Your task to perform on an android device: change the clock display to analog Image 0: 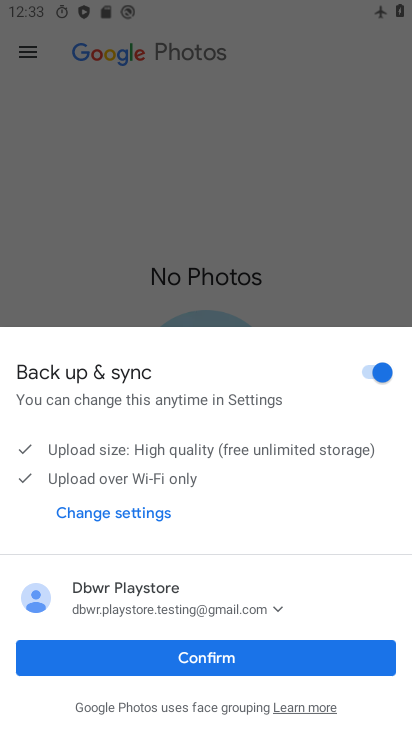
Step 0: press home button
Your task to perform on an android device: change the clock display to analog Image 1: 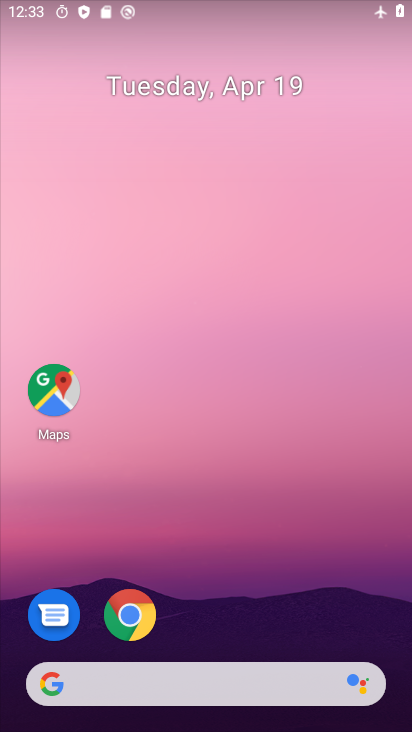
Step 1: drag from (383, 594) to (369, 66)
Your task to perform on an android device: change the clock display to analog Image 2: 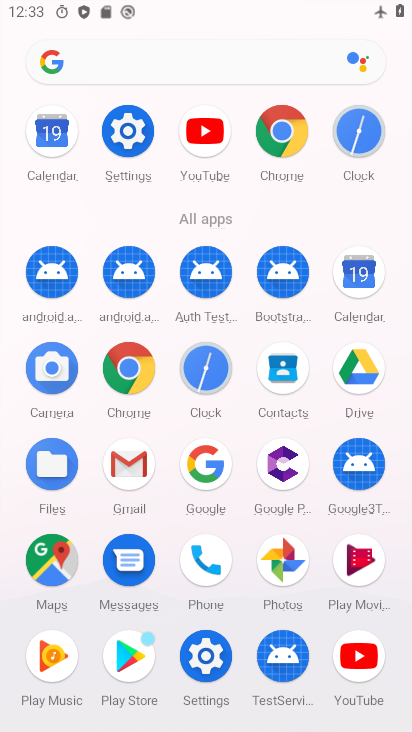
Step 2: click (208, 373)
Your task to perform on an android device: change the clock display to analog Image 3: 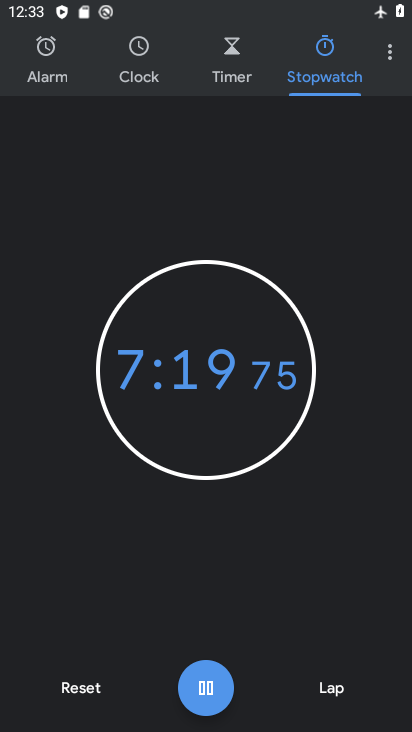
Step 3: click (389, 55)
Your task to perform on an android device: change the clock display to analog Image 4: 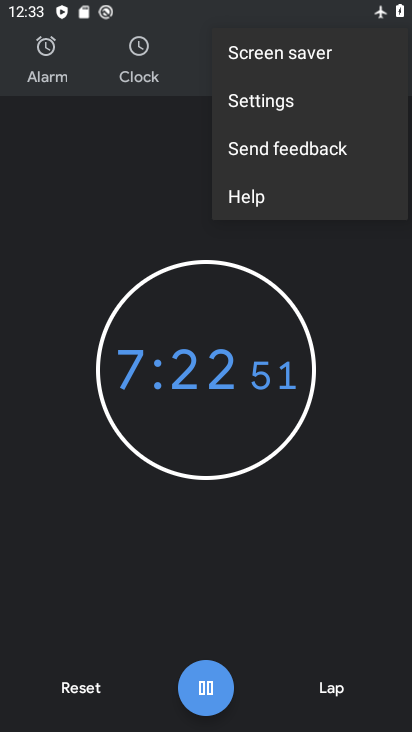
Step 4: click (293, 102)
Your task to perform on an android device: change the clock display to analog Image 5: 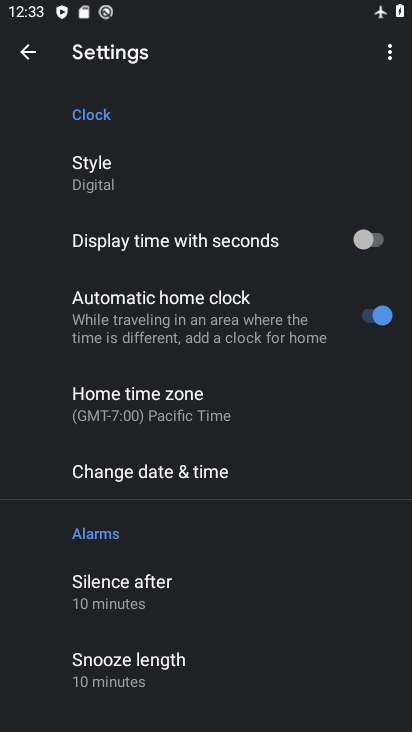
Step 5: drag from (325, 578) to (307, 393)
Your task to perform on an android device: change the clock display to analog Image 6: 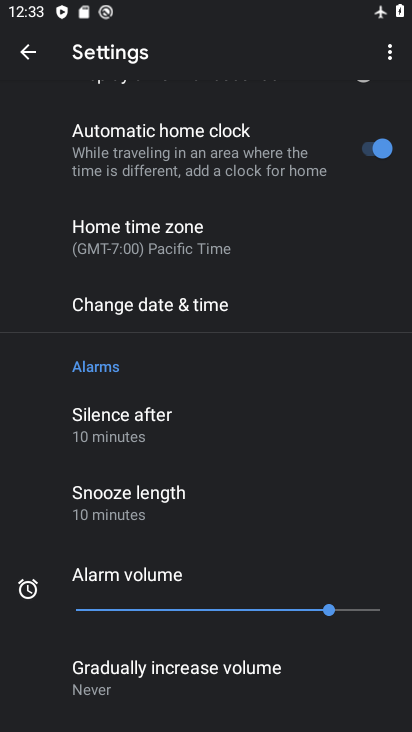
Step 6: drag from (325, 531) to (325, 308)
Your task to perform on an android device: change the clock display to analog Image 7: 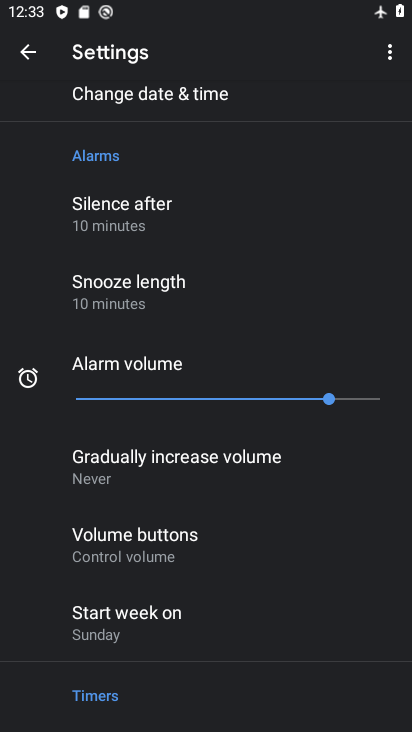
Step 7: drag from (336, 586) to (353, 355)
Your task to perform on an android device: change the clock display to analog Image 8: 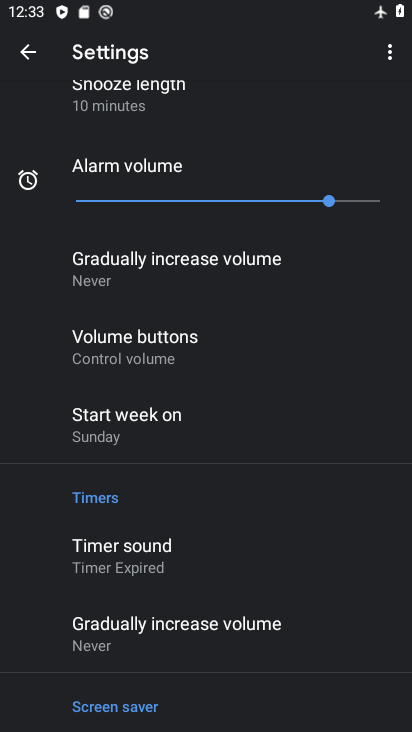
Step 8: drag from (331, 603) to (363, 284)
Your task to perform on an android device: change the clock display to analog Image 9: 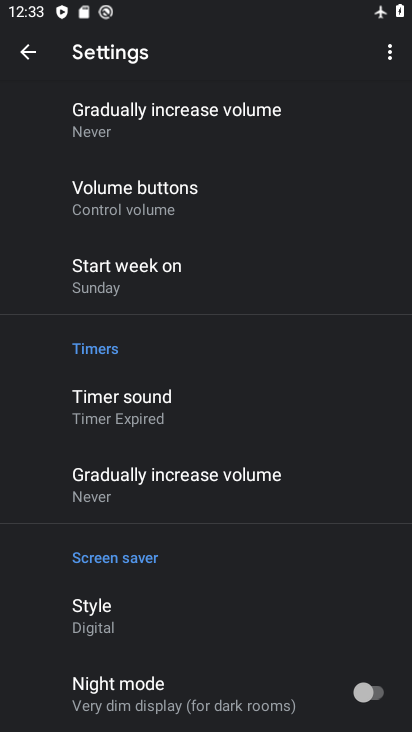
Step 9: drag from (360, 255) to (352, 458)
Your task to perform on an android device: change the clock display to analog Image 10: 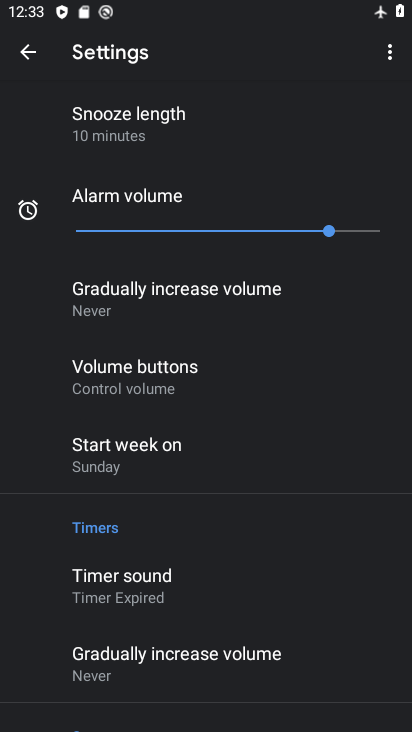
Step 10: drag from (356, 325) to (346, 527)
Your task to perform on an android device: change the clock display to analog Image 11: 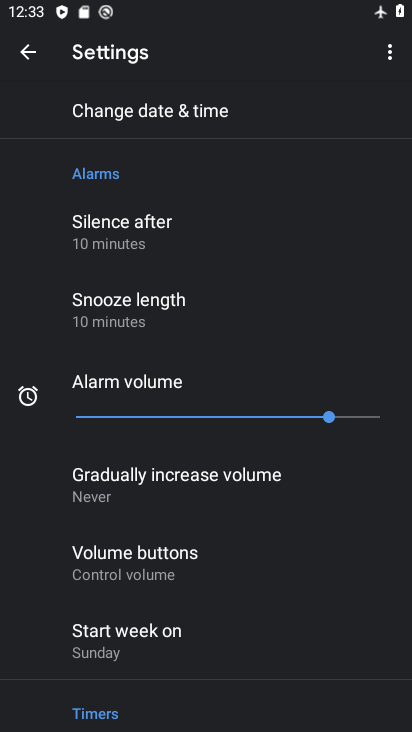
Step 11: drag from (362, 292) to (350, 524)
Your task to perform on an android device: change the clock display to analog Image 12: 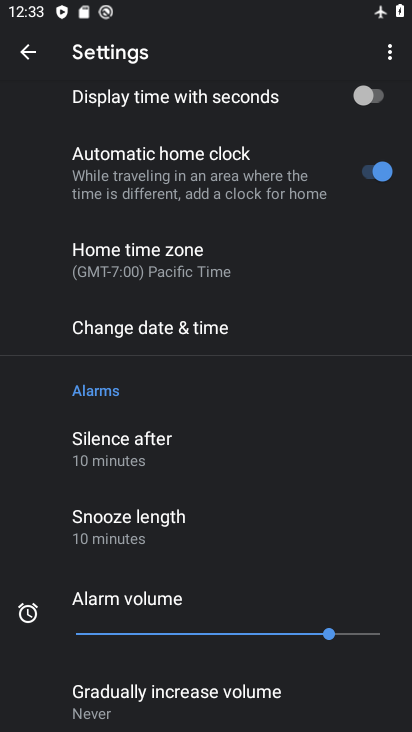
Step 12: drag from (339, 275) to (344, 473)
Your task to perform on an android device: change the clock display to analog Image 13: 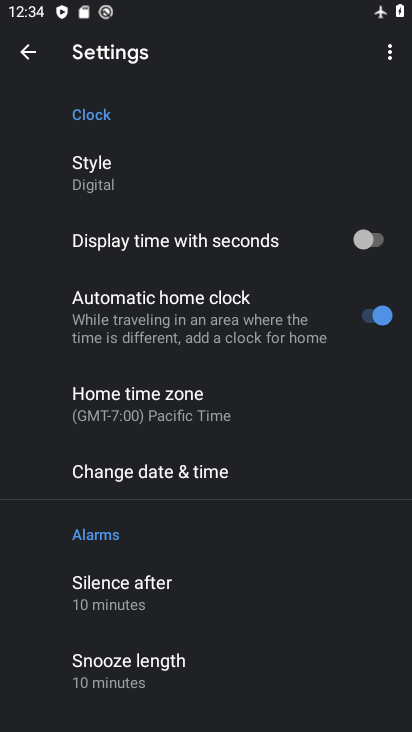
Step 13: click (103, 172)
Your task to perform on an android device: change the clock display to analog Image 14: 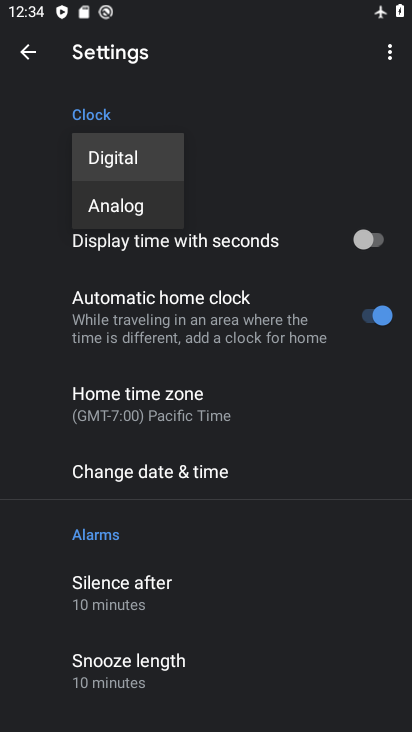
Step 14: click (112, 202)
Your task to perform on an android device: change the clock display to analog Image 15: 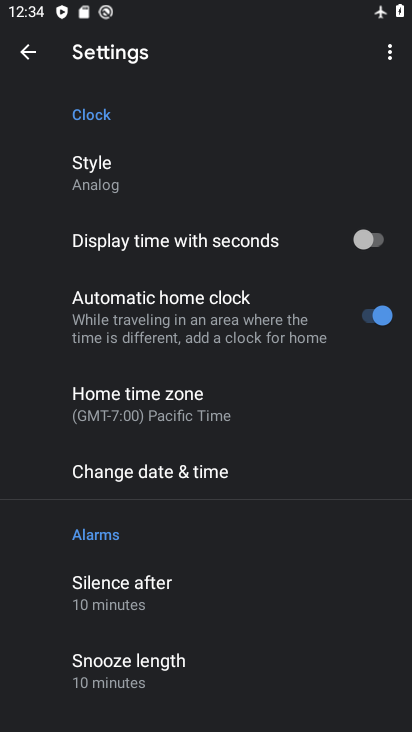
Step 15: task complete